Your task to perform on an android device: Go to Reddit.com Image 0: 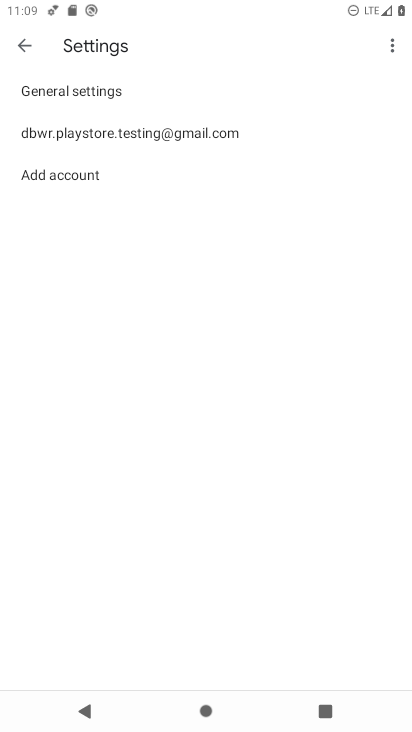
Step 0: press home button
Your task to perform on an android device: Go to Reddit.com Image 1: 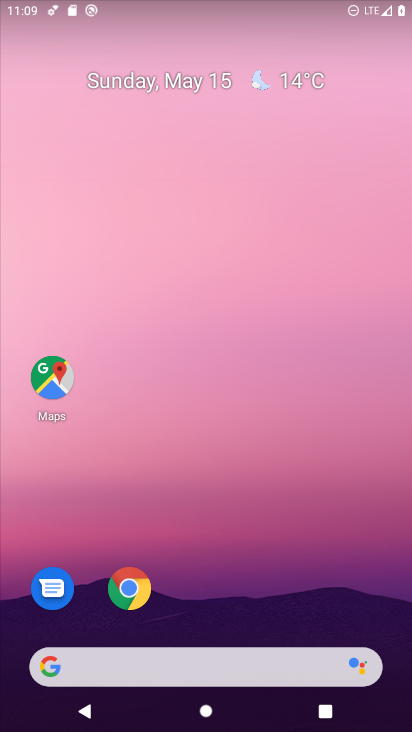
Step 1: click (140, 601)
Your task to perform on an android device: Go to Reddit.com Image 2: 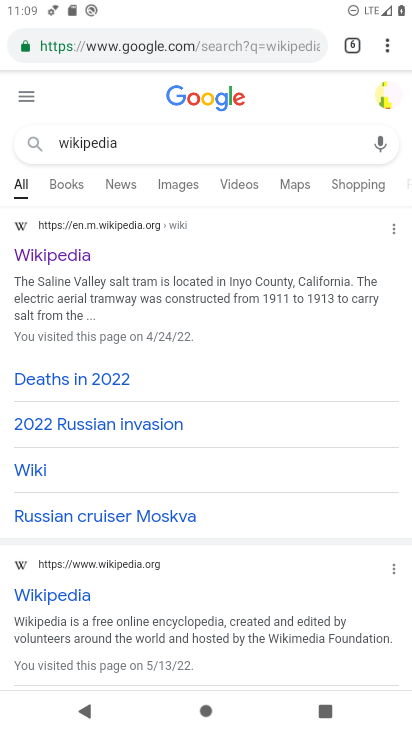
Step 2: click (206, 52)
Your task to perform on an android device: Go to Reddit.com Image 3: 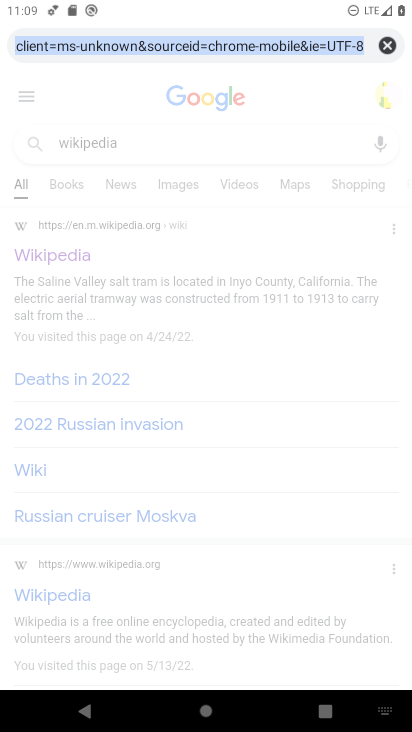
Step 3: type "Reddit.com"
Your task to perform on an android device: Go to Reddit.com Image 4: 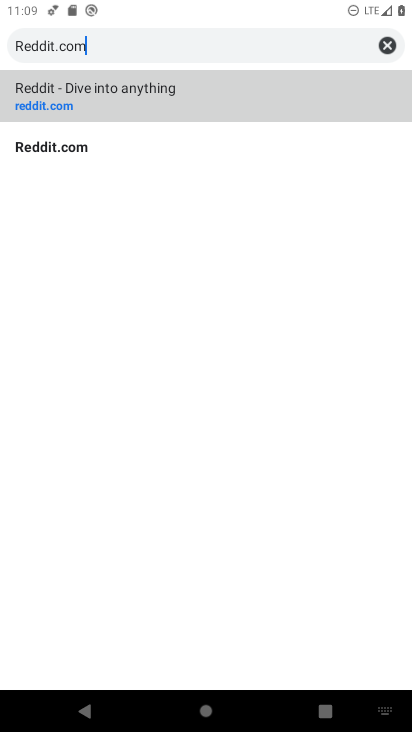
Step 4: click (63, 155)
Your task to perform on an android device: Go to Reddit.com Image 5: 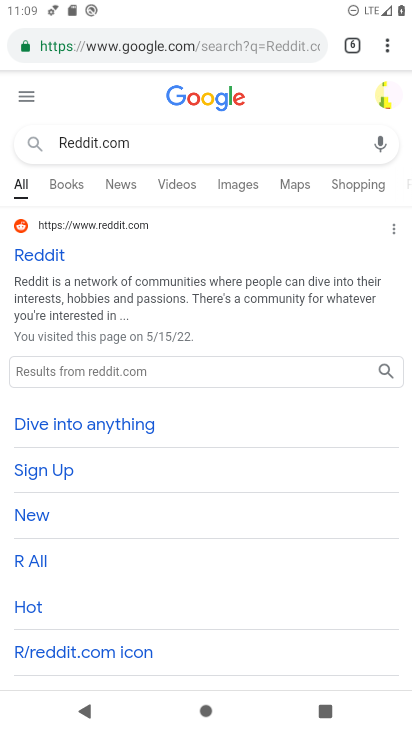
Step 5: task complete